Your task to perform on an android device: Show me recent news Image 0: 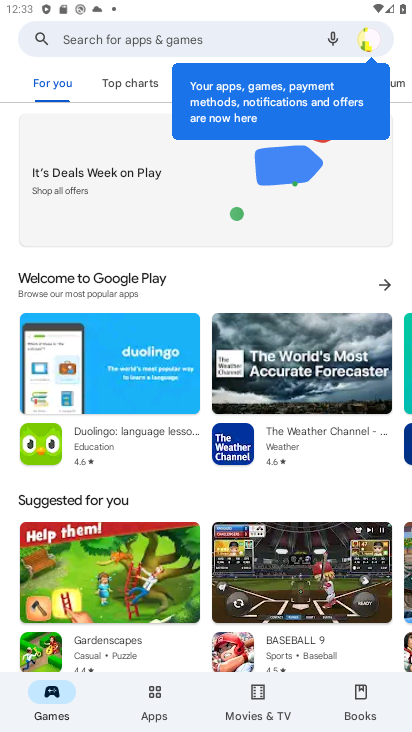
Step 0: press home button
Your task to perform on an android device: Show me recent news Image 1: 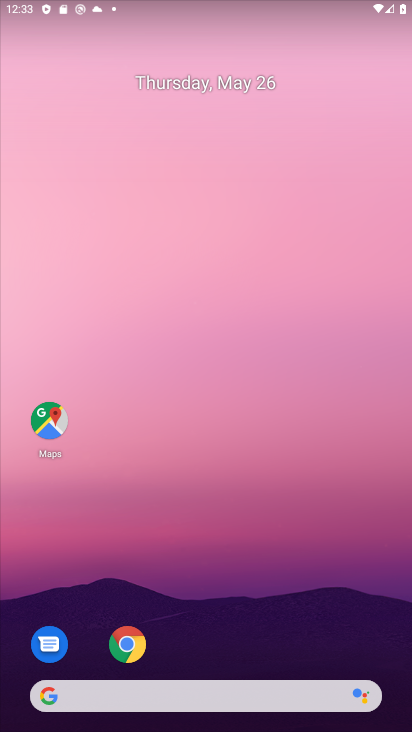
Step 1: click (218, 707)
Your task to perform on an android device: Show me recent news Image 2: 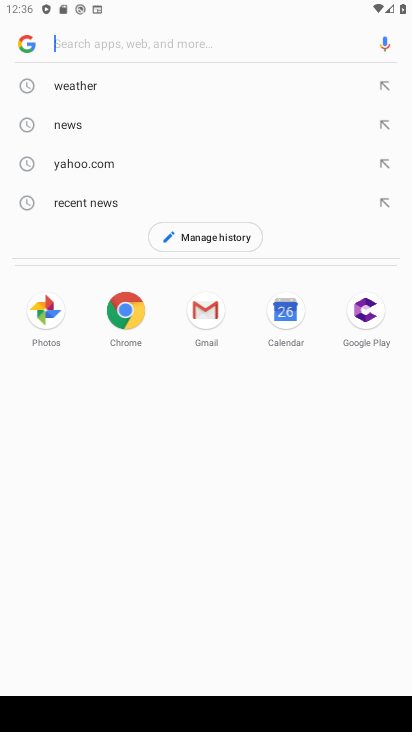
Step 2: task complete